Your task to perform on an android device: turn off sleep mode Image 0: 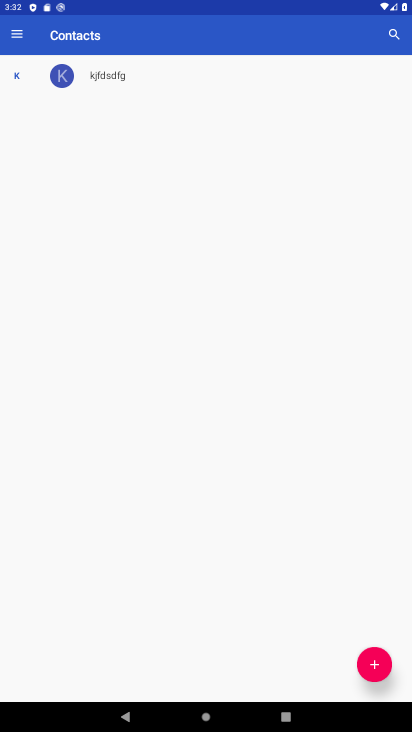
Step 0: task impossible